Your task to perform on an android device: Open notification settings Image 0: 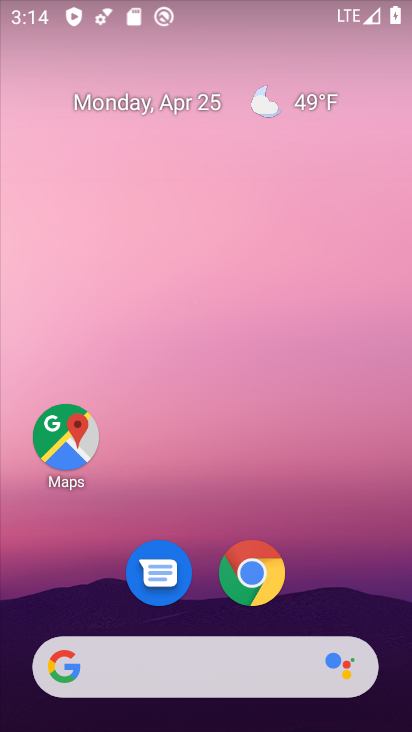
Step 0: drag from (323, 549) to (278, 14)
Your task to perform on an android device: Open notification settings Image 1: 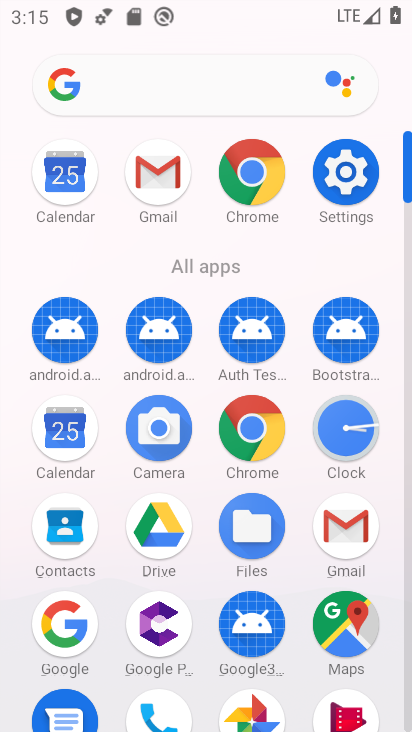
Step 1: click (351, 187)
Your task to perform on an android device: Open notification settings Image 2: 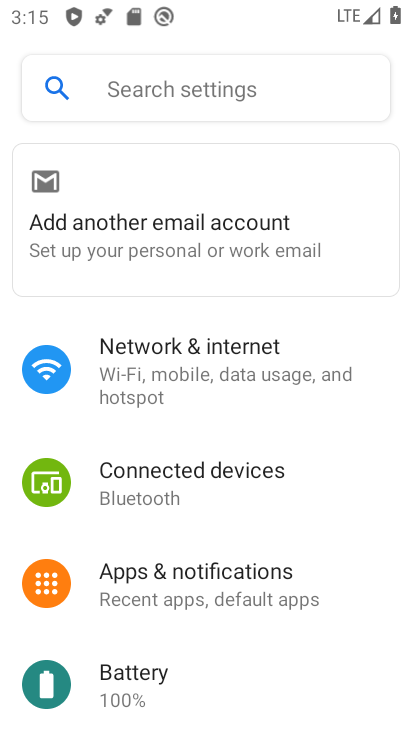
Step 2: click (192, 571)
Your task to perform on an android device: Open notification settings Image 3: 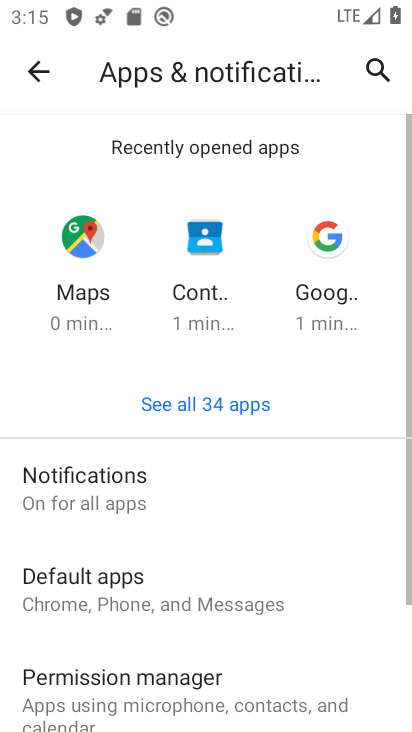
Step 3: click (145, 489)
Your task to perform on an android device: Open notification settings Image 4: 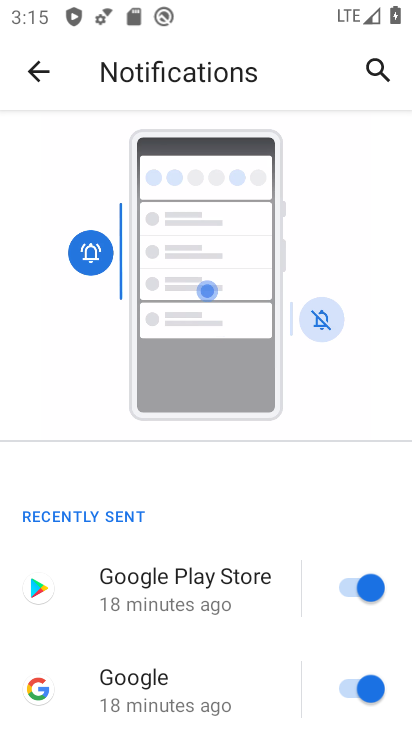
Step 4: task complete